Your task to perform on an android device: turn on wifi Image 0: 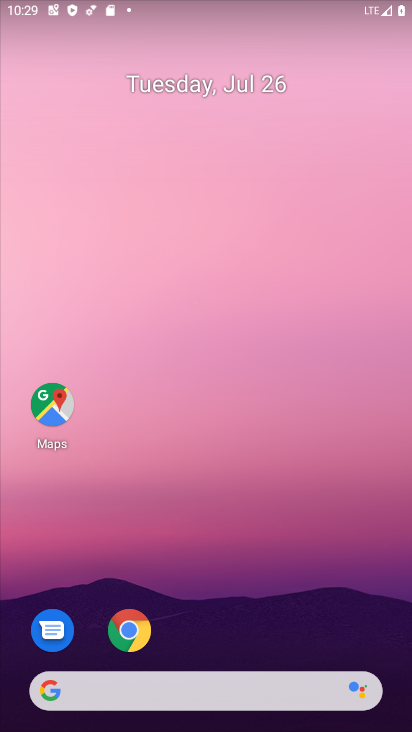
Step 0: drag from (202, 492) to (202, 157)
Your task to perform on an android device: turn on wifi Image 1: 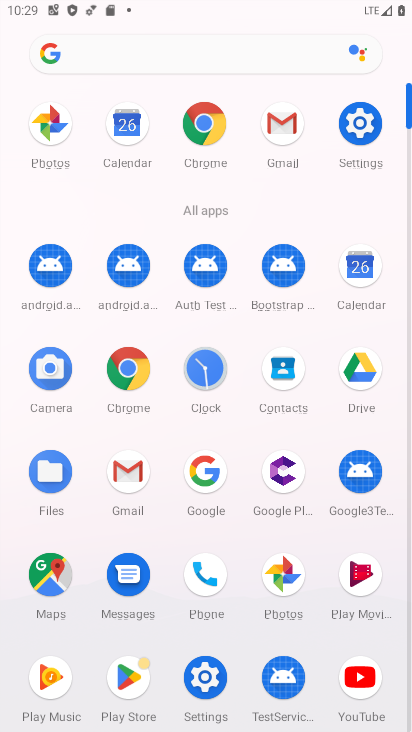
Step 1: click (353, 130)
Your task to perform on an android device: turn on wifi Image 2: 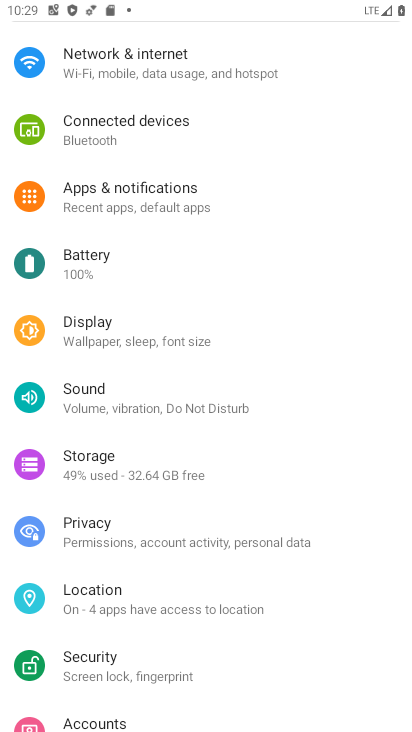
Step 2: click (91, 55)
Your task to perform on an android device: turn on wifi Image 3: 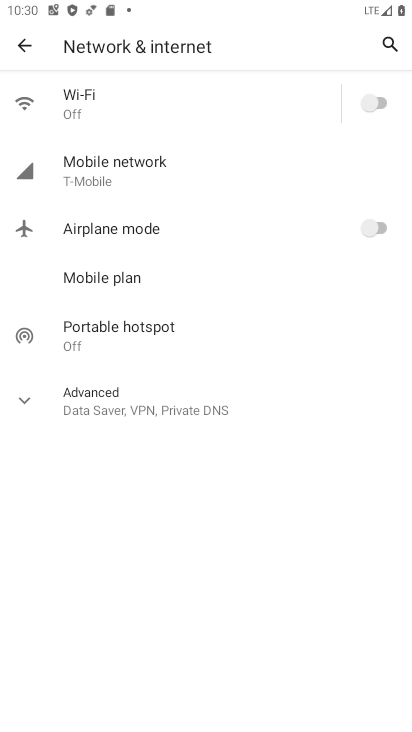
Step 3: click (382, 104)
Your task to perform on an android device: turn on wifi Image 4: 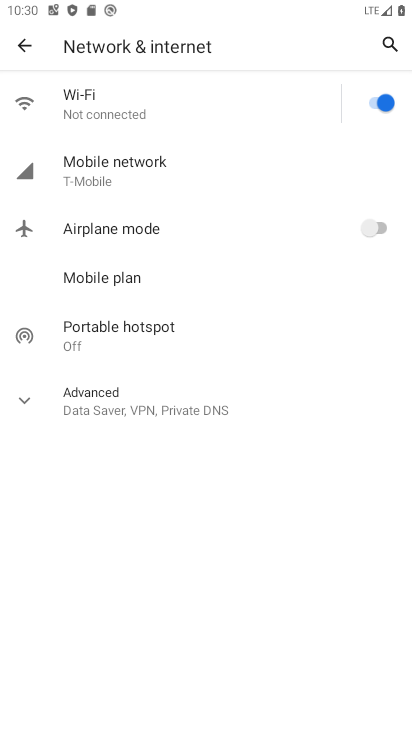
Step 4: task complete